Your task to perform on an android device: change the clock style Image 0: 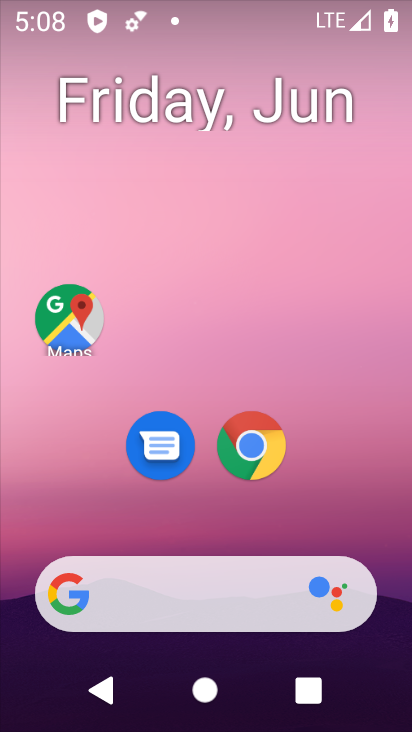
Step 0: drag from (381, 547) to (273, 30)
Your task to perform on an android device: change the clock style Image 1: 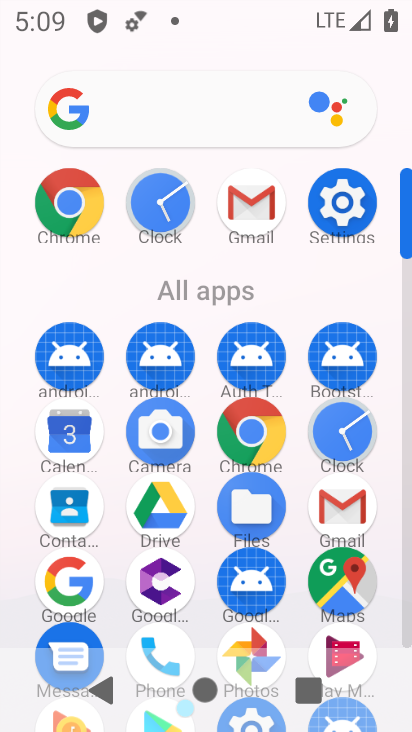
Step 1: drag from (11, 453) to (32, 217)
Your task to perform on an android device: change the clock style Image 2: 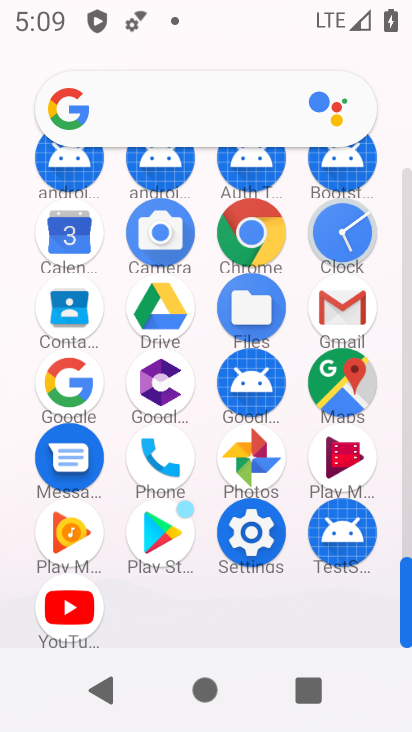
Step 2: click (340, 228)
Your task to perform on an android device: change the clock style Image 3: 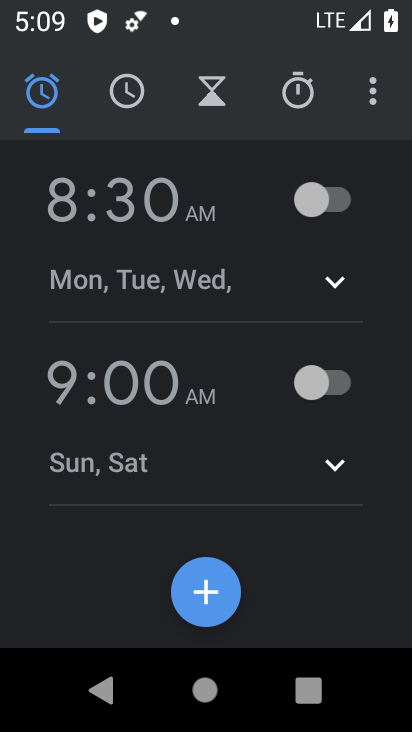
Step 3: drag from (373, 92) to (250, 177)
Your task to perform on an android device: change the clock style Image 4: 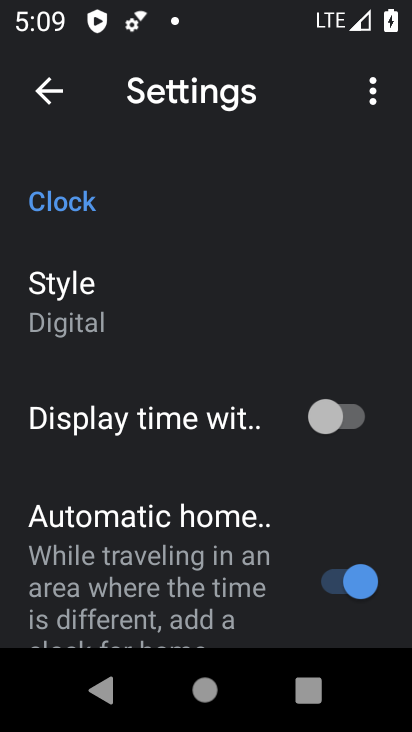
Step 4: click (109, 299)
Your task to perform on an android device: change the clock style Image 5: 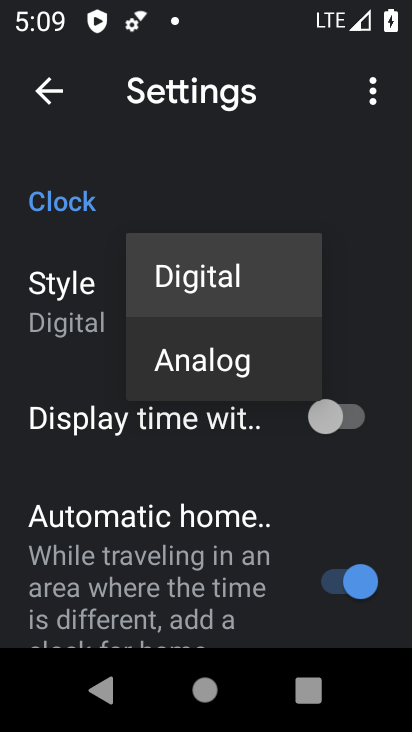
Step 5: click (177, 358)
Your task to perform on an android device: change the clock style Image 6: 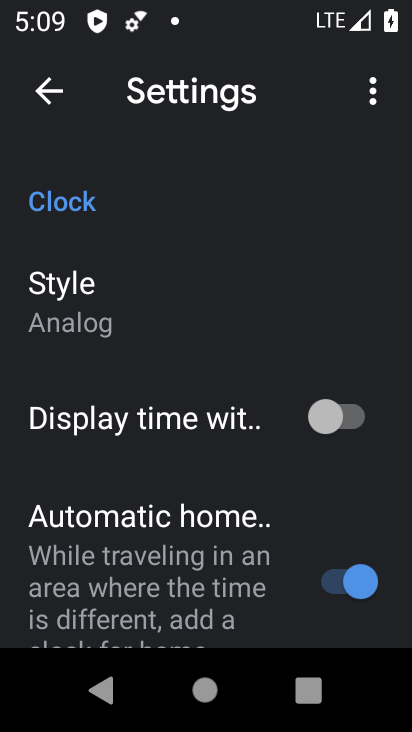
Step 6: task complete